Your task to perform on an android device: What is the news today? Image 0: 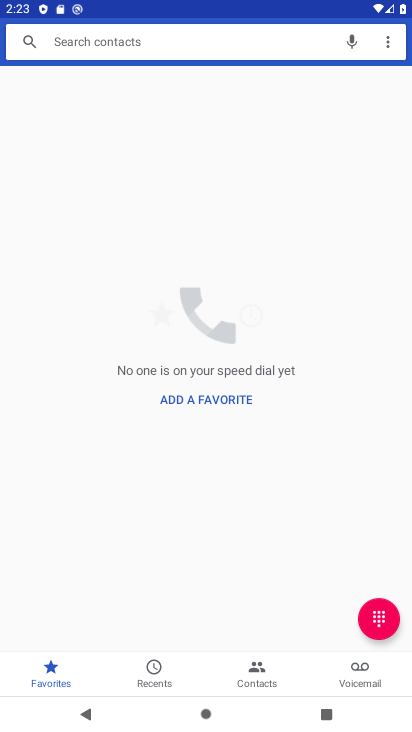
Step 0: press back button
Your task to perform on an android device: What is the news today? Image 1: 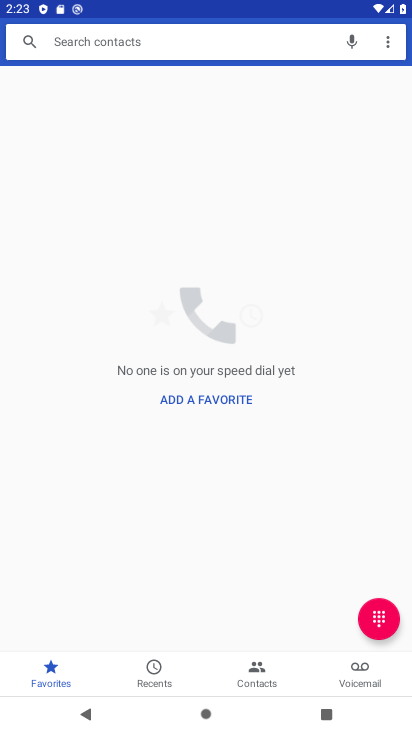
Step 1: press back button
Your task to perform on an android device: What is the news today? Image 2: 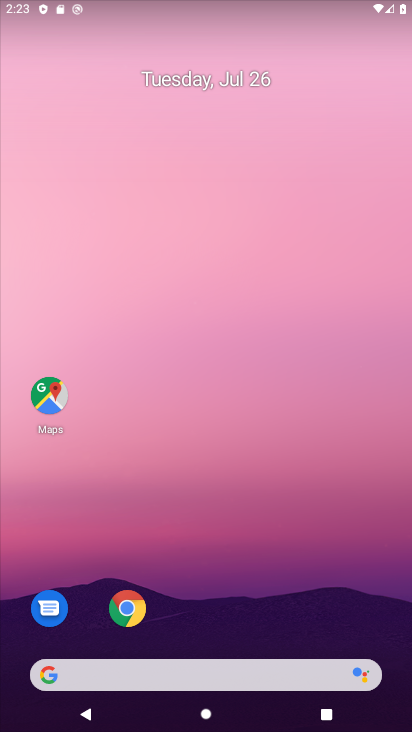
Step 2: drag from (261, 667) to (221, 231)
Your task to perform on an android device: What is the news today? Image 3: 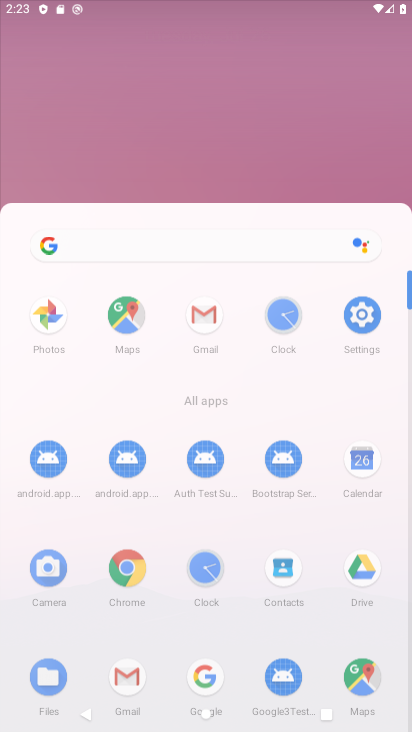
Step 3: click (302, 286)
Your task to perform on an android device: What is the news today? Image 4: 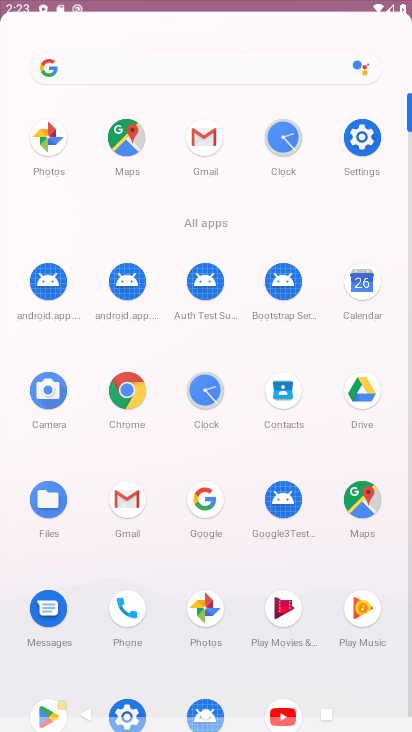
Step 4: drag from (298, 610) to (201, 197)
Your task to perform on an android device: What is the news today? Image 5: 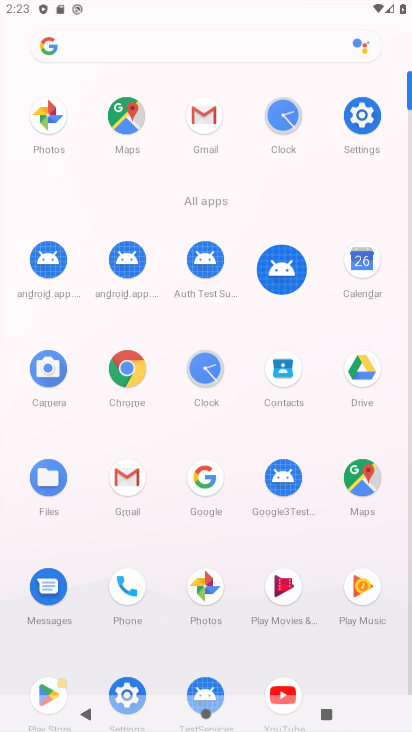
Step 5: click (120, 361)
Your task to perform on an android device: What is the news today? Image 6: 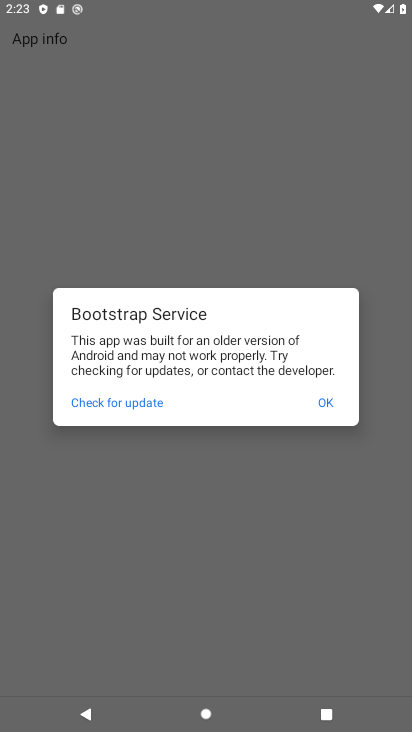
Step 6: click (127, 366)
Your task to perform on an android device: What is the news today? Image 7: 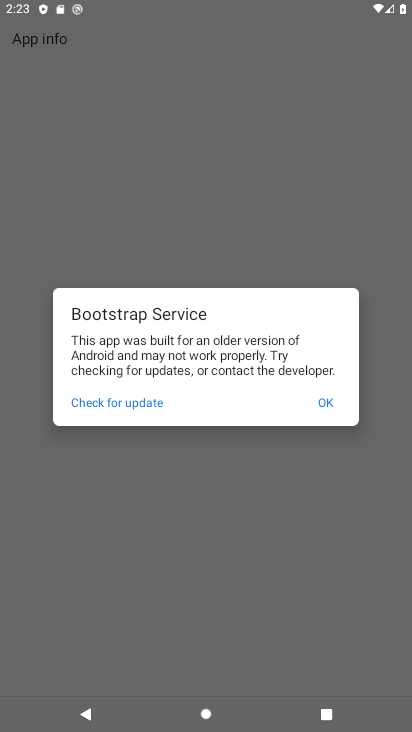
Step 7: click (331, 400)
Your task to perform on an android device: What is the news today? Image 8: 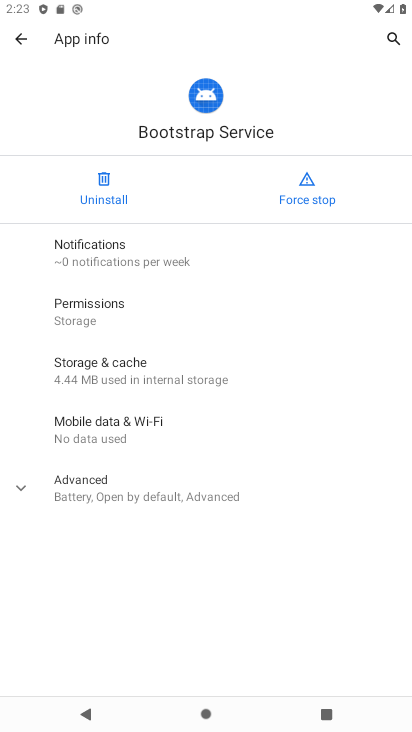
Step 8: click (15, 47)
Your task to perform on an android device: What is the news today? Image 9: 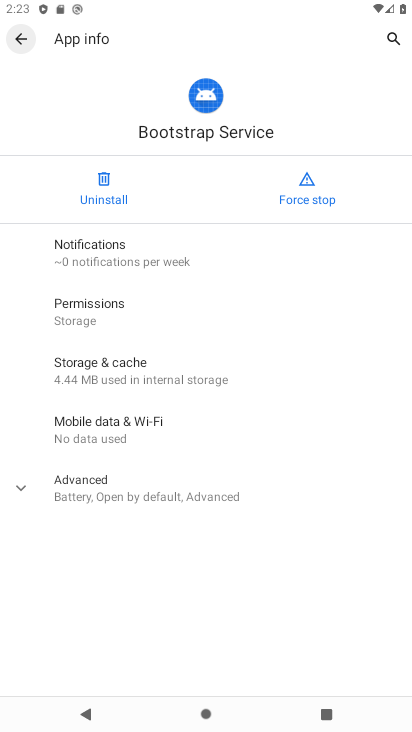
Step 9: click (18, 45)
Your task to perform on an android device: What is the news today? Image 10: 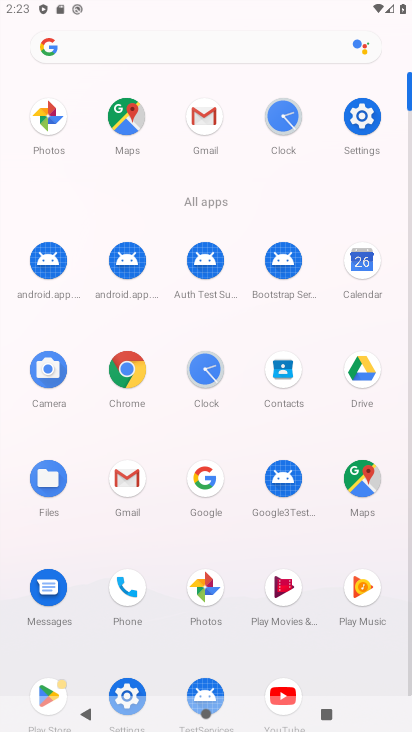
Step 10: click (129, 359)
Your task to perform on an android device: What is the news today? Image 11: 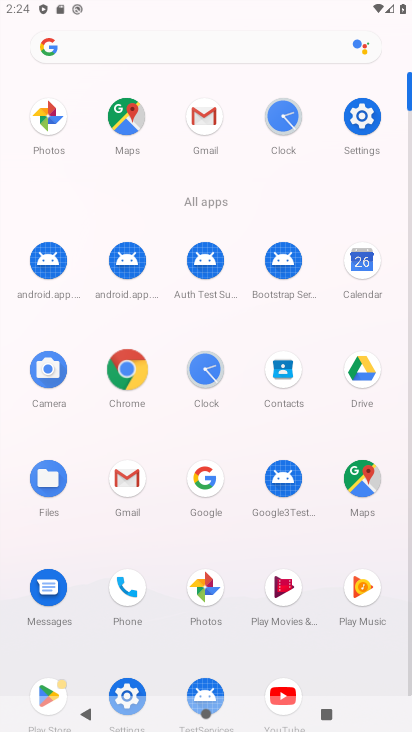
Step 11: click (136, 358)
Your task to perform on an android device: What is the news today? Image 12: 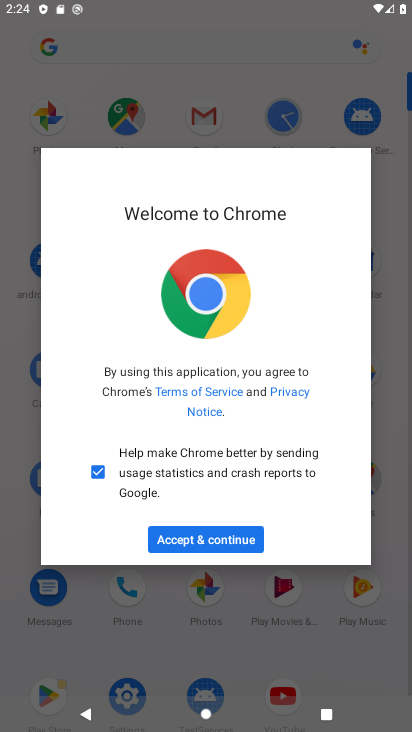
Step 12: click (217, 535)
Your task to perform on an android device: What is the news today? Image 13: 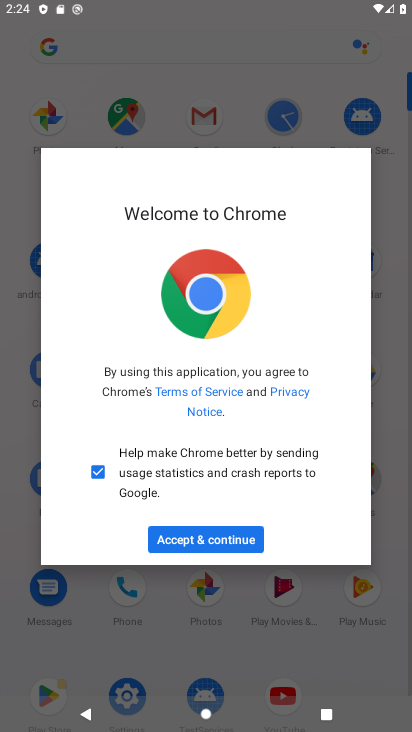
Step 13: click (219, 538)
Your task to perform on an android device: What is the news today? Image 14: 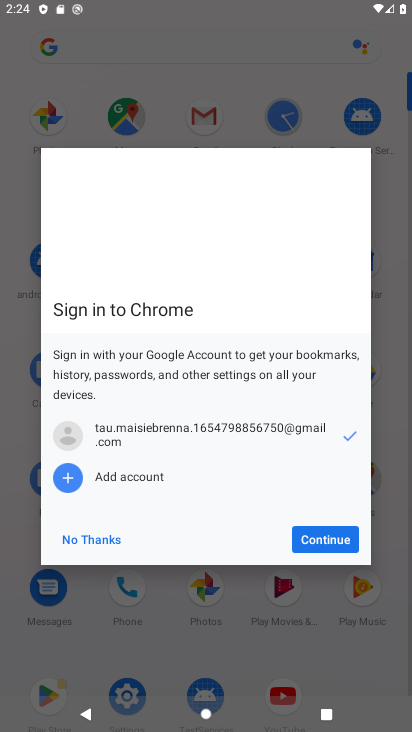
Step 14: click (93, 540)
Your task to perform on an android device: What is the news today? Image 15: 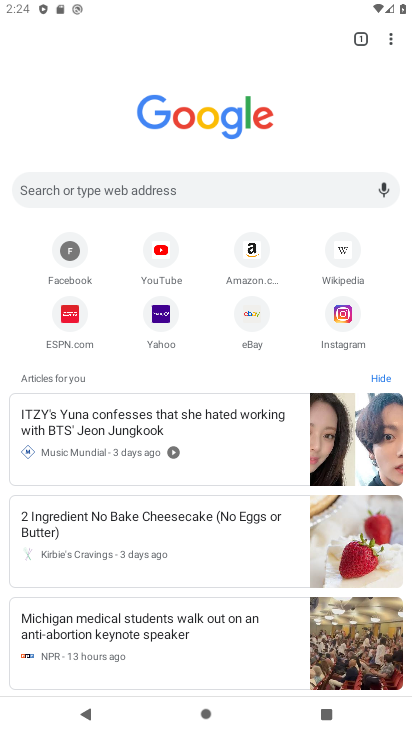
Step 15: task complete